Your task to perform on an android device: open wifi settings Image 0: 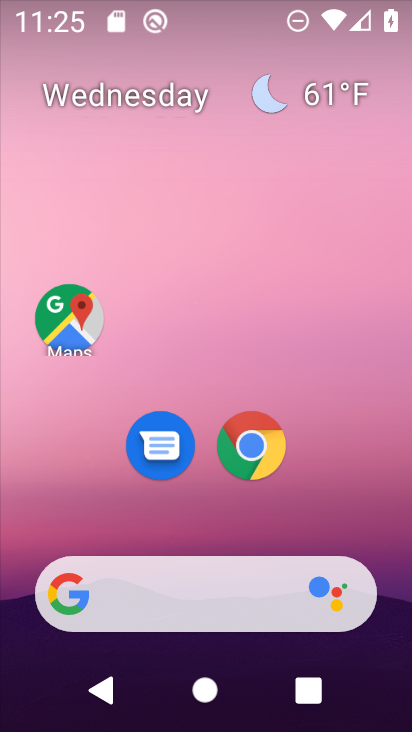
Step 0: drag from (335, 494) to (344, 156)
Your task to perform on an android device: open wifi settings Image 1: 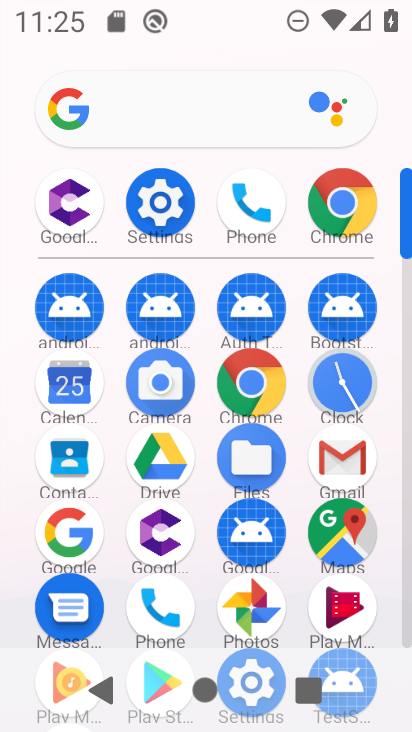
Step 1: drag from (268, 504) to (268, 212)
Your task to perform on an android device: open wifi settings Image 2: 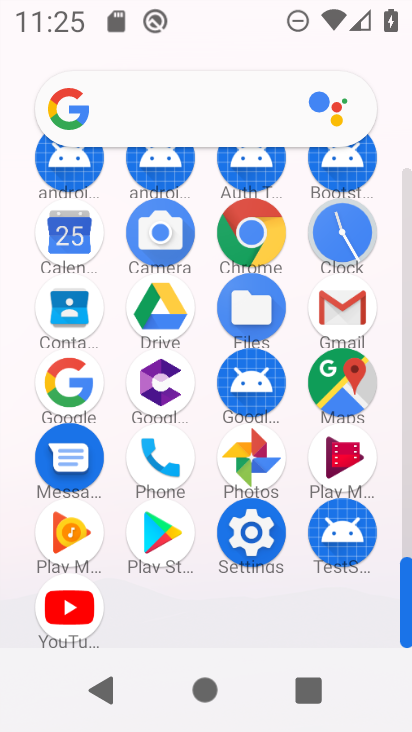
Step 2: click (254, 529)
Your task to perform on an android device: open wifi settings Image 3: 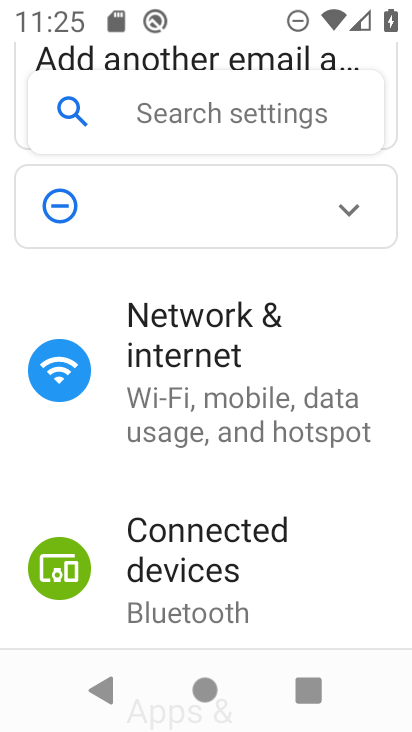
Step 3: click (307, 382)
Your task to perform on an android device: open wifi settings Image 4: 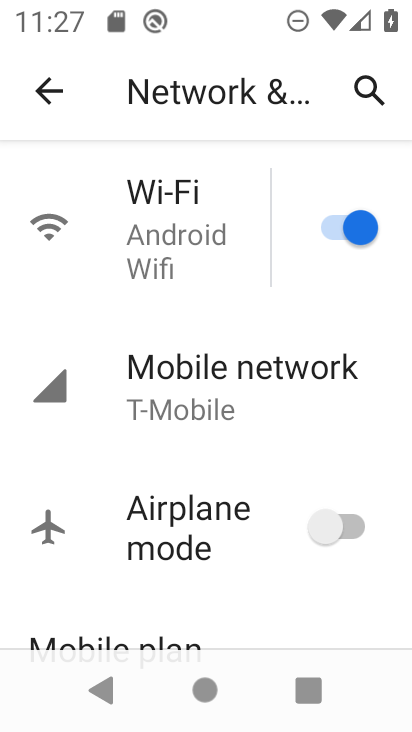
Step 4: task complete